Your task to perform on an android device: check android version Image 0: 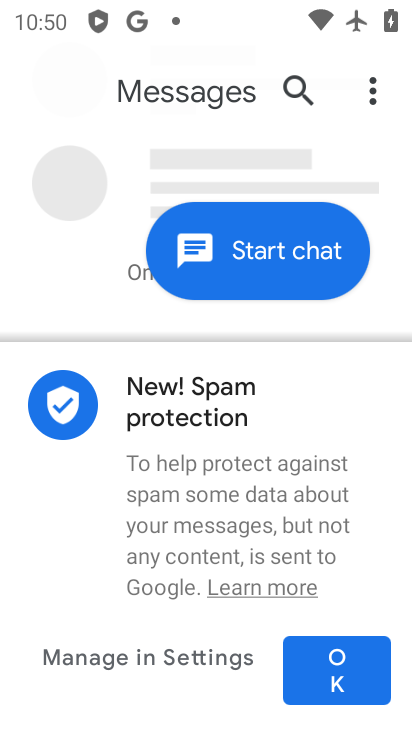
Step 0: press home button
Your task to perform on an android device: check android version Image 1: 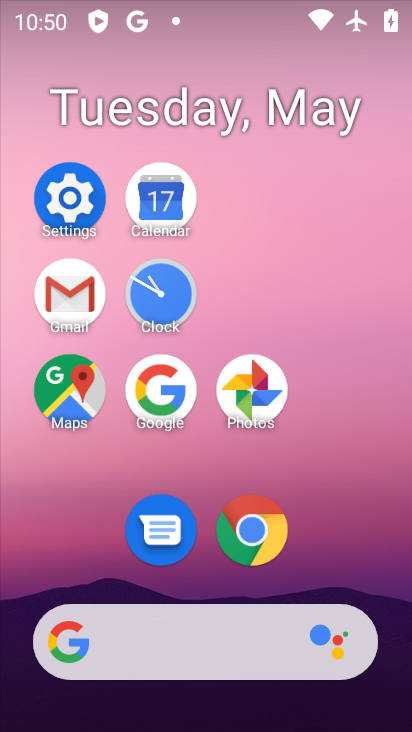
Step 1: click (63, 189)
Your task to perform on an android device: check android version Image 2: 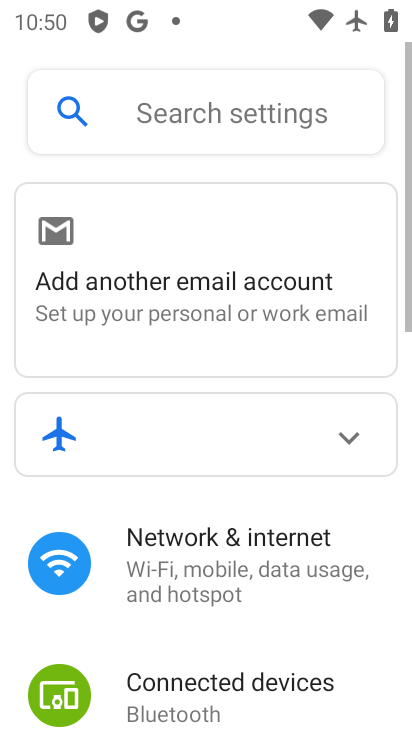
Step 2: drag from (199, 604) to (202, 147)
Your task to perform on an android device: check android version Image 3: 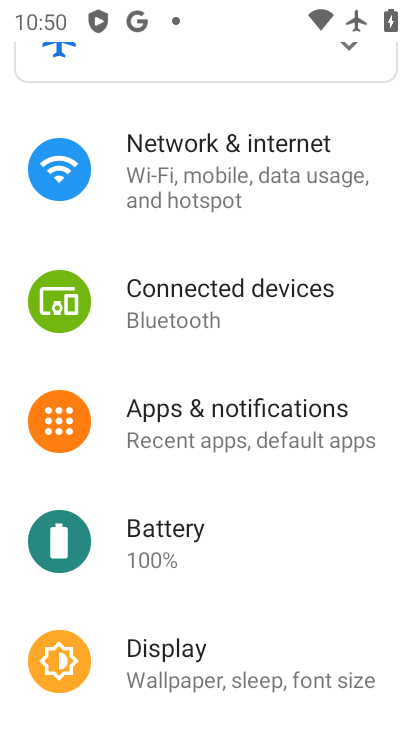
Step 3: drag from (198, 557) to (226, 114)
Your task to perform on an android device: check android version Image 4: 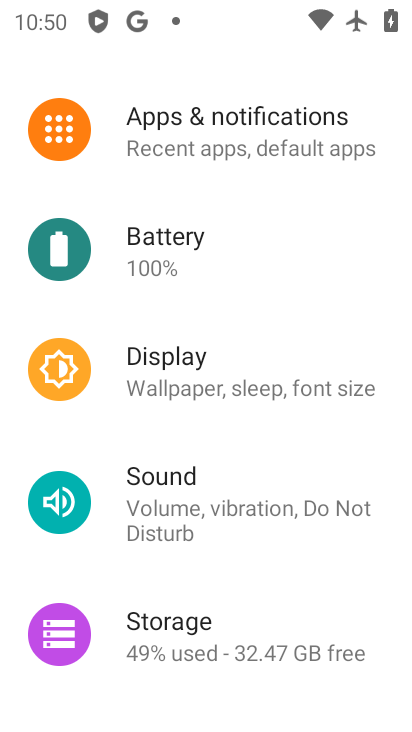
Step 4: drag from (241, 534) to (250, 139)
Your task to perform on an android device: check android version Image 5: 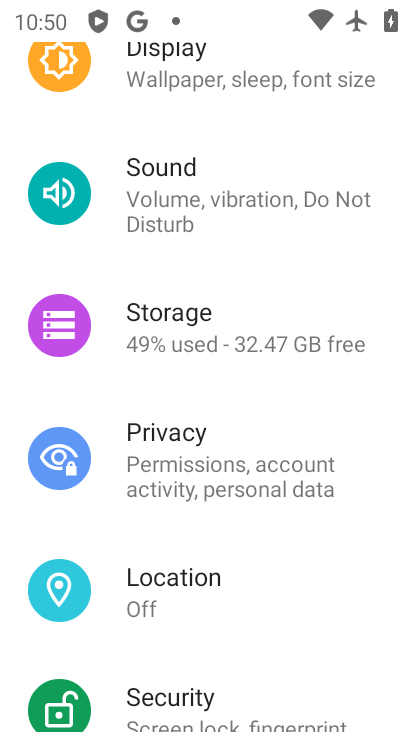
Step 5: drag from (243, 595) to (251, 221)
Your task to perform on an android device: check android version Image 6: 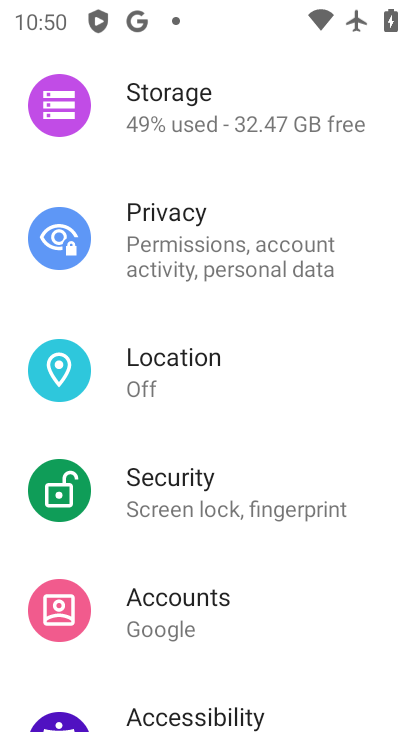
Step 6: drag from (234, 604) to (245, 247)
Your task to perform on an android device: check android version Image 7: 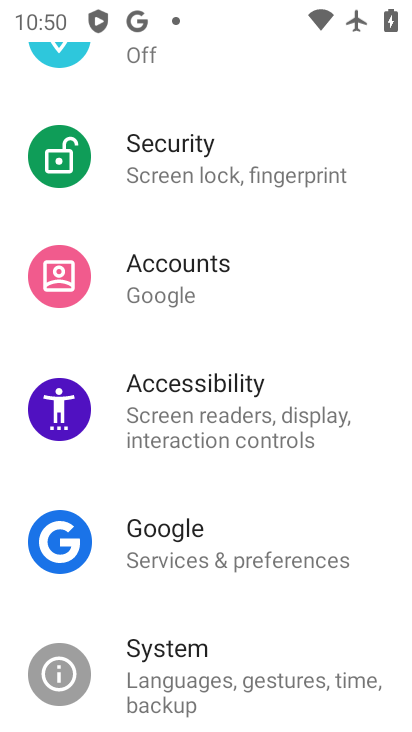
Step 7: drag from (211, 655) to (250, 285)
Your task to perform on an android device: check android version Image 8: 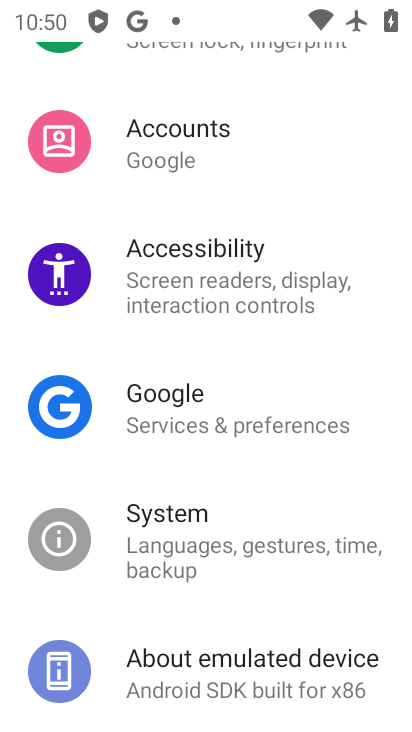
Step 8: click (233, 650)
Your task to perform on an android device: check android version Image 9: 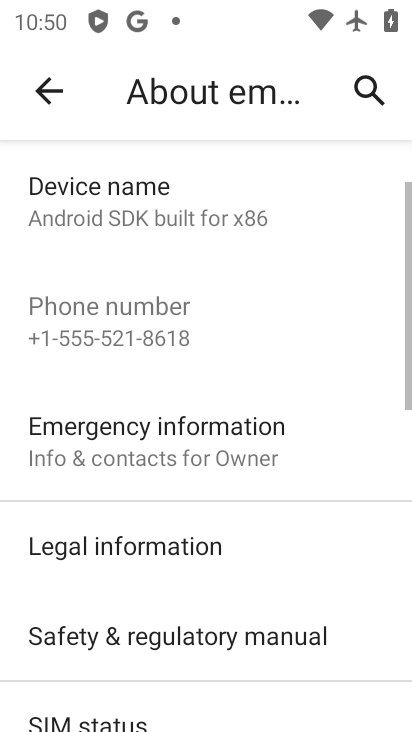
Step 9: drag from (233, 649) to (270, 285)
Your task to perform on an android device: check android version Image 10: 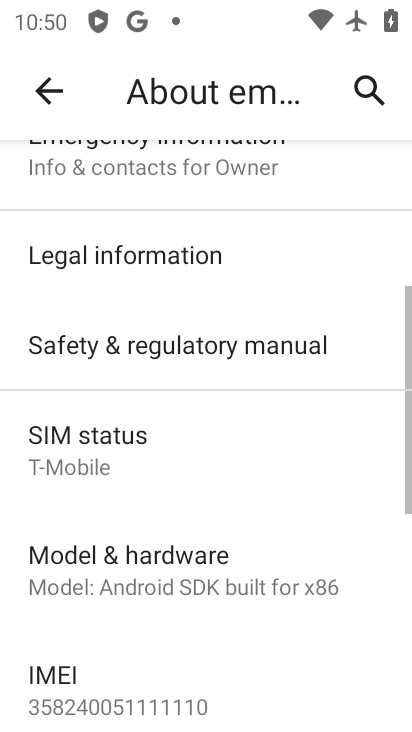
Step 10: drag from (248, 520) to (271, 236)
Your task to perform on an android device: check android version Image 11: 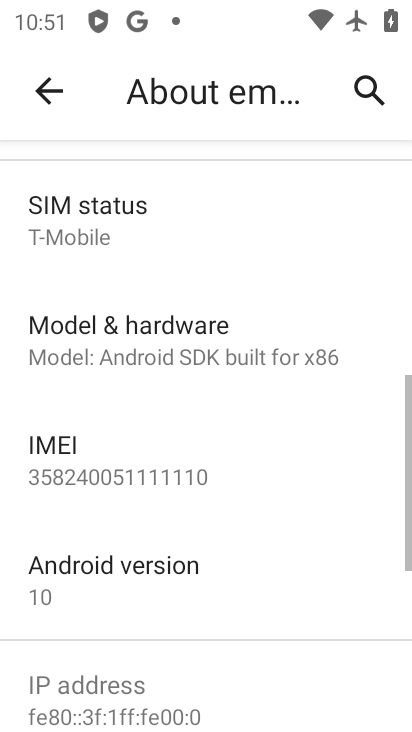
Step 11: click (171, 566)
Your task to perform on an android device: check android version Image 12: 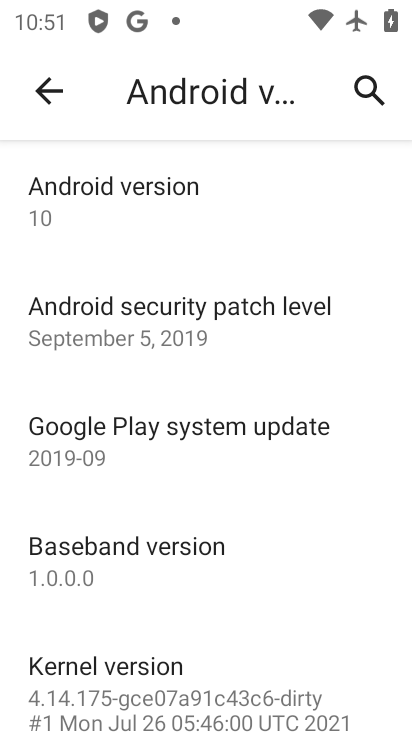
Step 12: task complete